Your task to perform on an android device: turn off location history Image 0: 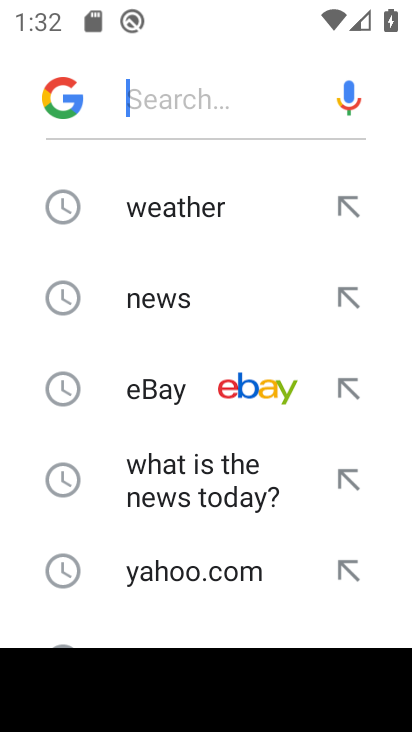
Step 0: press home button
Your task to perform on an android device: turn off location history Image 1: 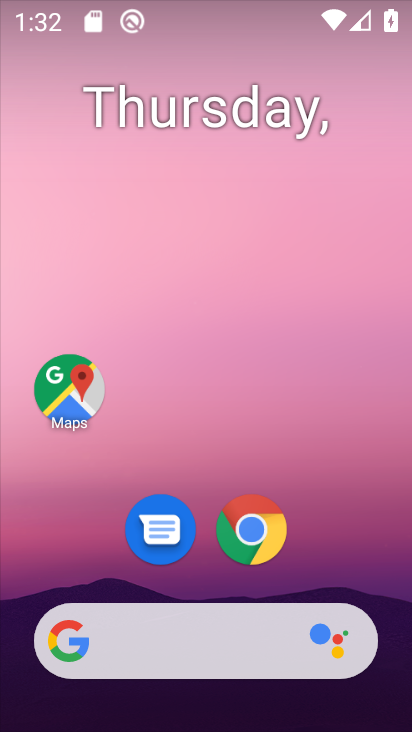
Step 1: drag from (188, 568) to (209, 184)
Your task to perform on an android device: turn off location history Image 2: 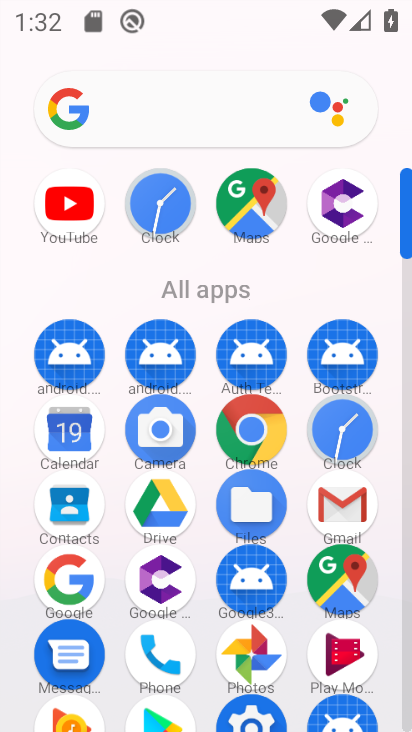
Step 2: drag from (275, 547) to (305, 402)
Your task to perform on an android device: turn off location history Image 3: 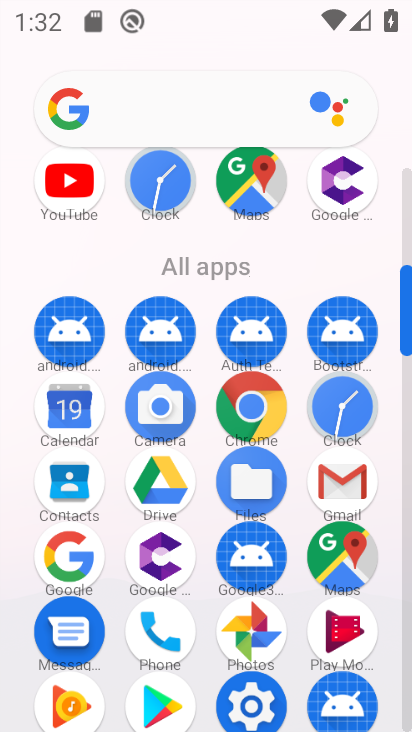
Step 3: click (244, 708)
Your task to perform on an android device: turn off location history Image 4: 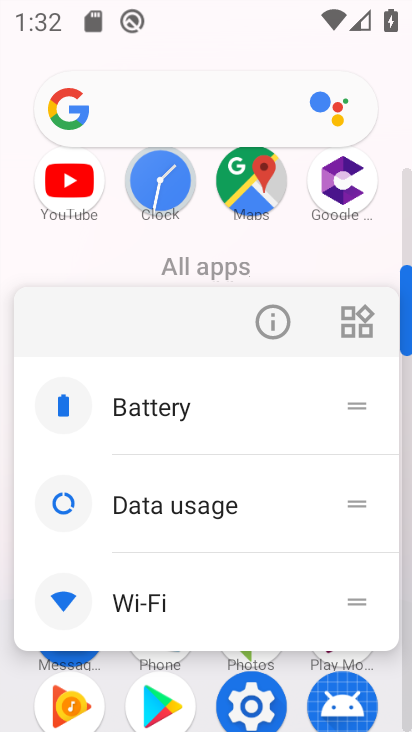
Step 4: click (237, 709)
Your task to perform on an android device: turn off location history Image 5: 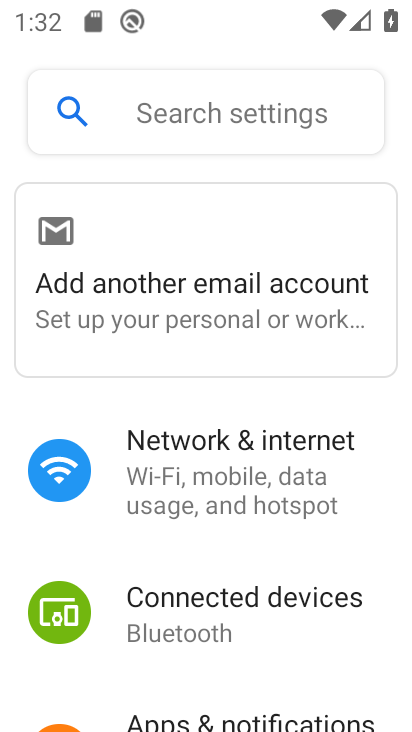
Step 5: drag from (228, 665) to (238, 265)
Your task to perform on an android device: turn off location history Image 6: 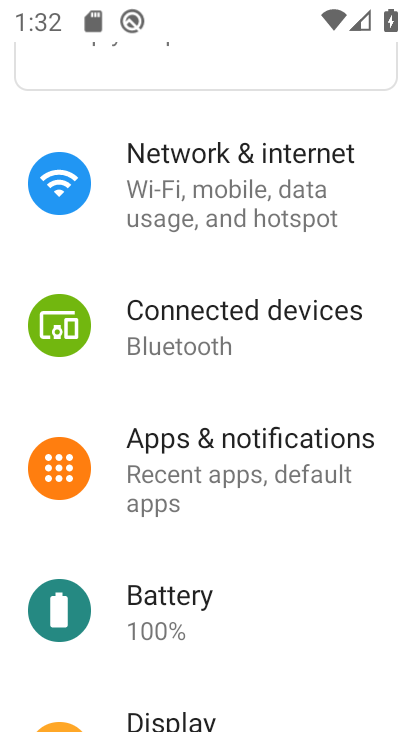
Step 6: drag from (224, 605) to (231, 294)
Your task to perform on an android device: turn off location history Image 7: 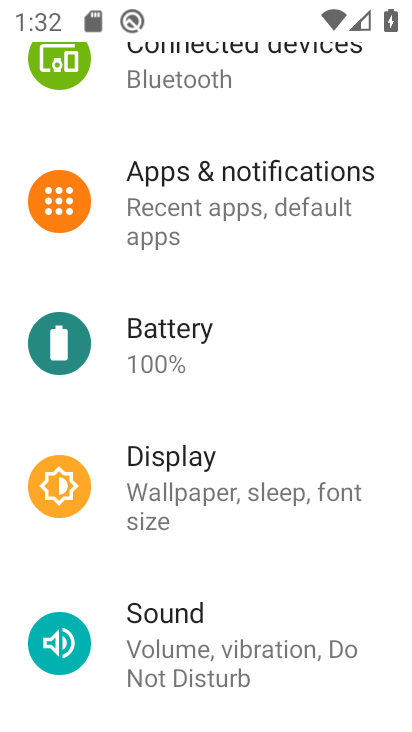
Step 7: drag from (223, 582) to (275, 239)
Your task to perform on an android device: turn off location history Image 8: 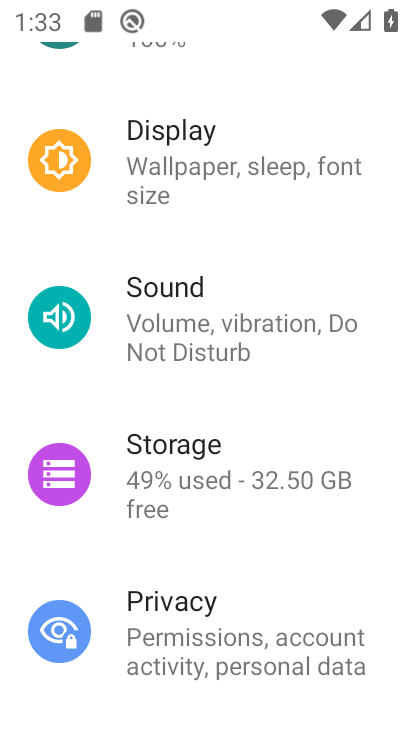
Step 8: drag from (265, 486) to (287, 320)
Your task to perform on an android device: turn off location history Image 9: 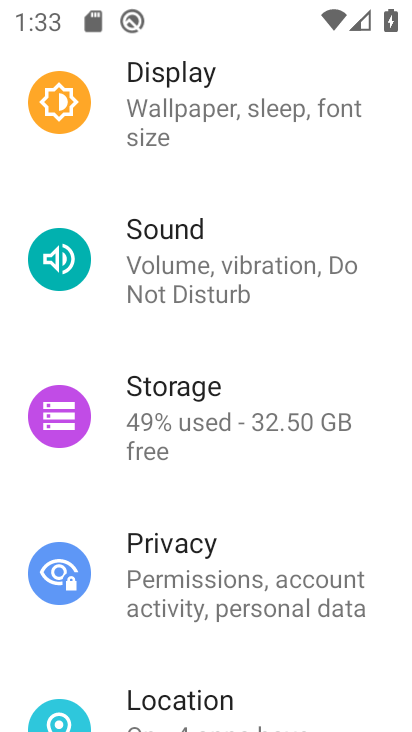
Step 9: drag from (218, 634) to (253, 297)
Your task to perform on an android device: turn off location history Image 10: 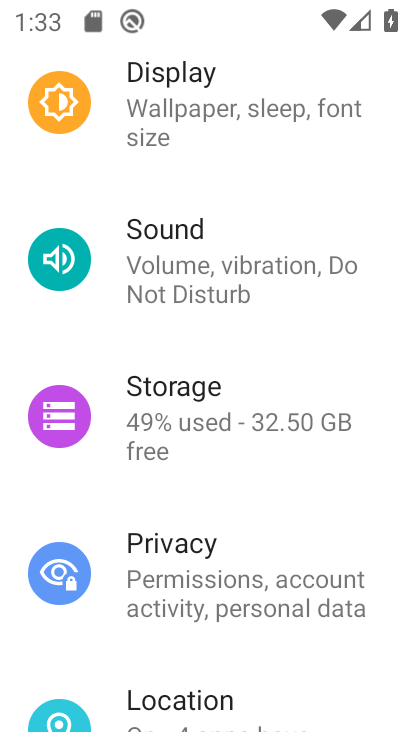
Step 10: click (194, 704)
Your task to perform on an android device: turn off location history Image 11: 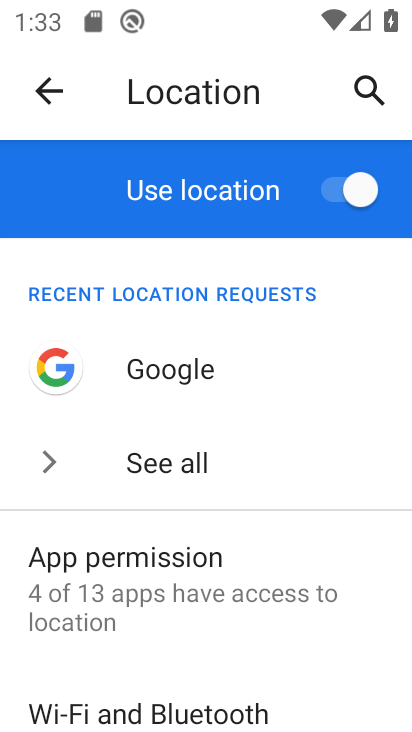
Step 11: click (243, 192)
Your task to perform on an android device: turn off location history Image 12: 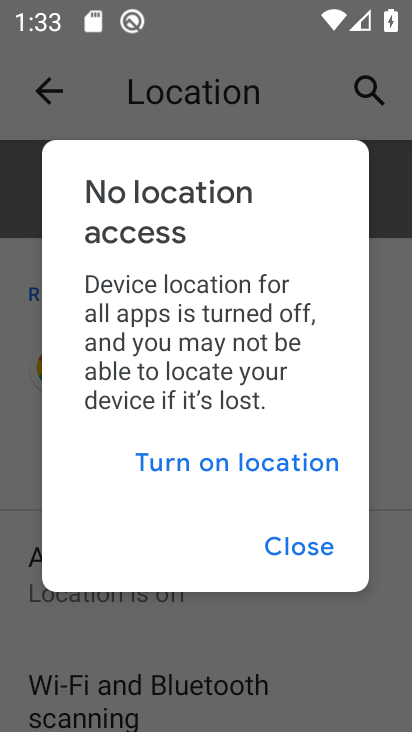
Step 12: click (301, 543)
Your task to perform on an android device: turn off location history Image 13: 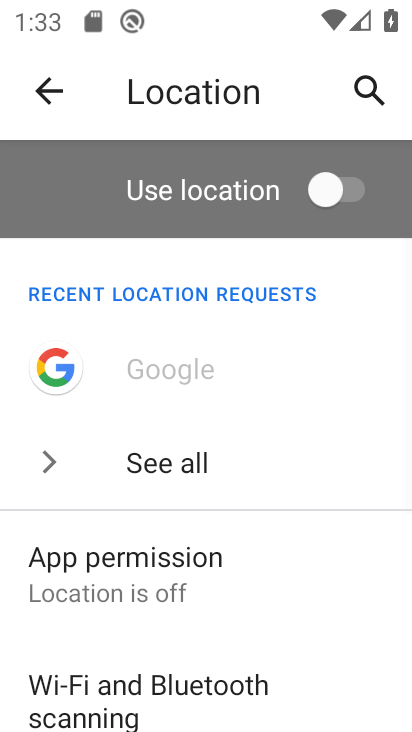
Step 13: drag from (301, 157) to (314, 76)
Your task to perform on an android device: turn off location history Image 14: 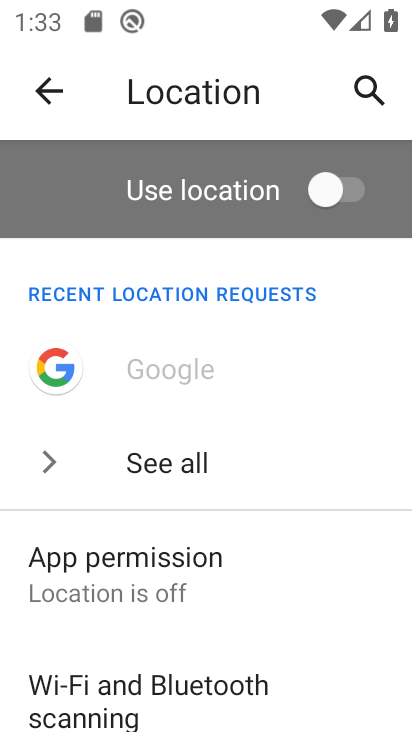
Step 14: drag from (130, 647) to (122, 224)
Your task to perform on an android device: turn off location history Image 15: 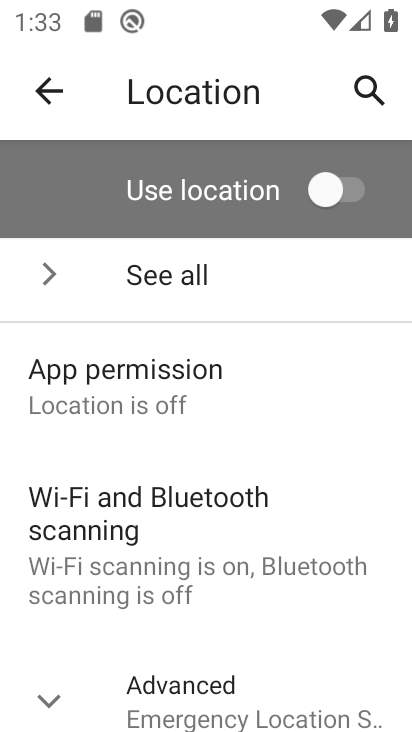
Step 15: drag from (167, 650) to (230, 298)
Your task to perform on an android device: turn off location history Image 16: 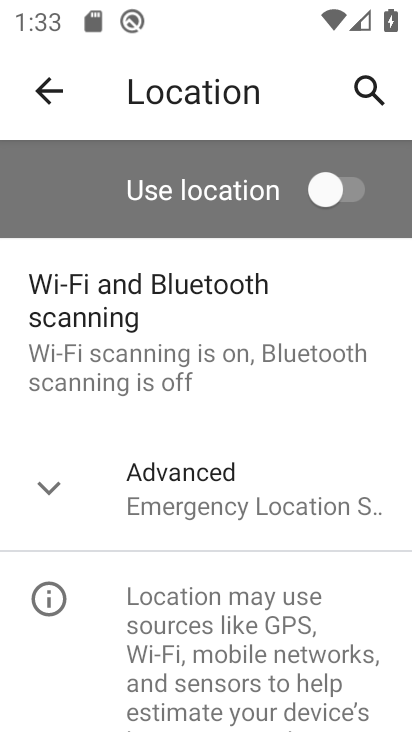
Step 16: drag from (158, 623) to (193, 232)
Your task to perform on an android device: turn off location history Image 17: 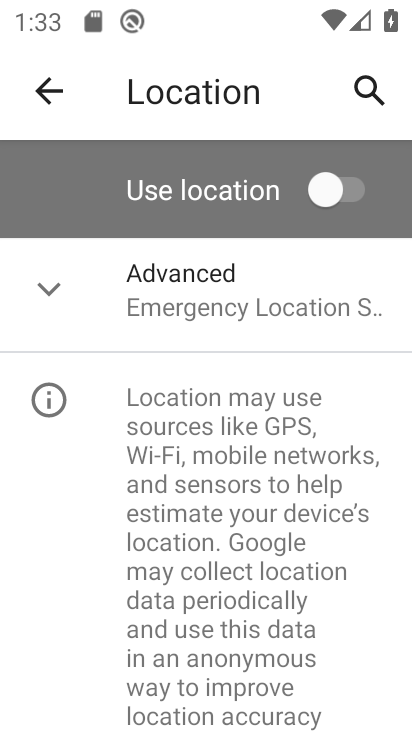
Step 17: click (191, 305)
Your task to perform on an android device: turn off location history Image 18: 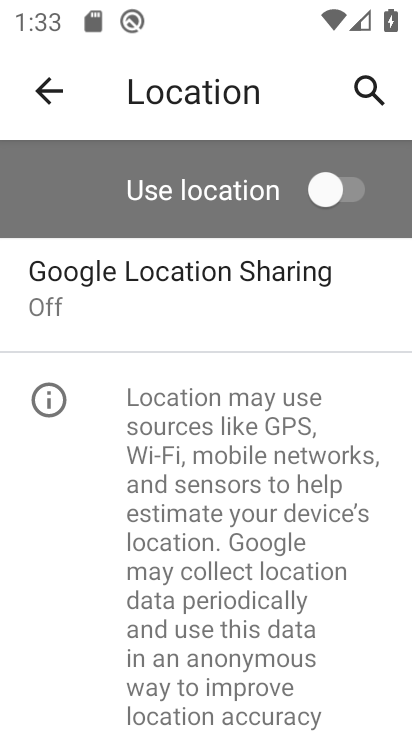
Step 18: click (222, 496)
Your task to perform on an android device: turn off location history Image 19: 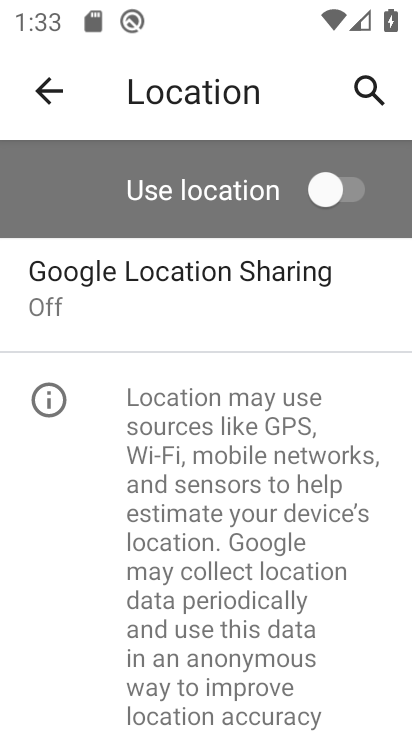
Step 19: click (220, 508)
Your task to perform on an android device: turn off location history Image 20: 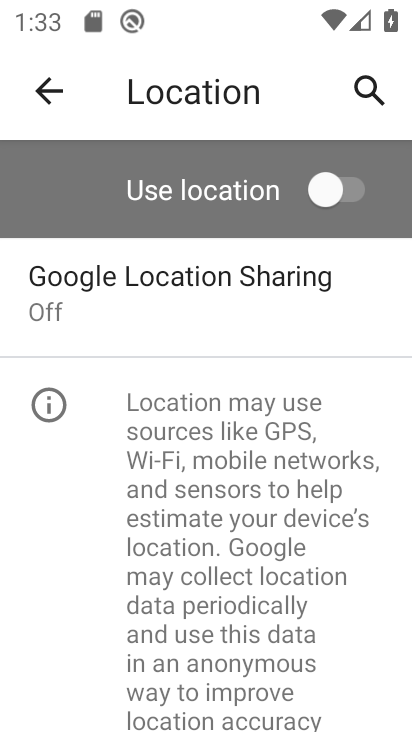
Step 20: drag from (261, 298) to (194, 543)
Your task to perform on an android device: turn off location history Image 21: 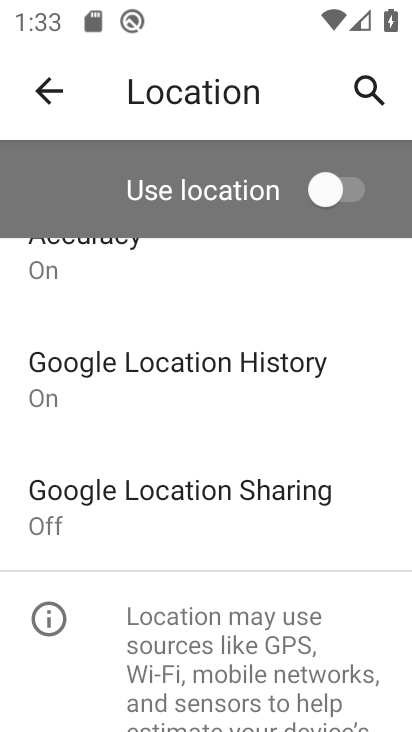
Step 21: click (222, 378)
Your task to perform on an android device: turn off location history Image 22: 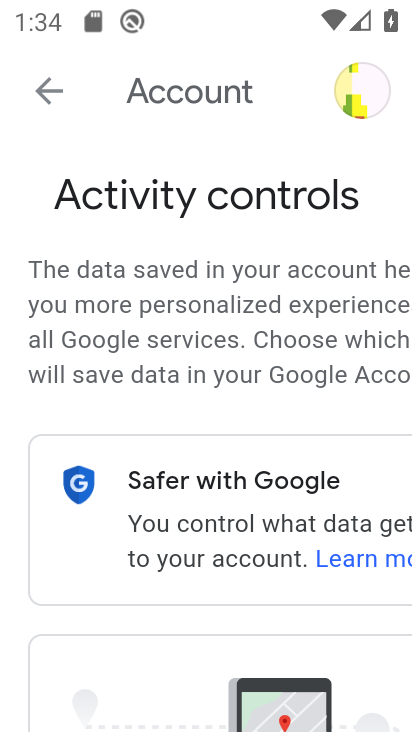
Step 22: click (235, 223)
Your task to perform on an android device: turn off location history Image 23: 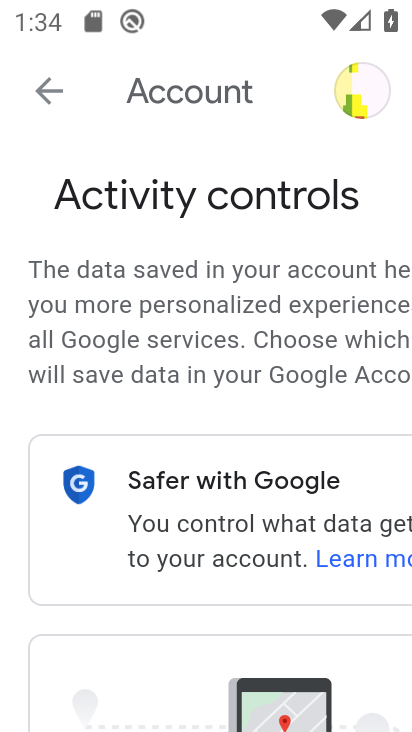
Step 23: drag from (179, 572) to (256, 153)
Your task to perform on an android device: turn off location history Image 24: 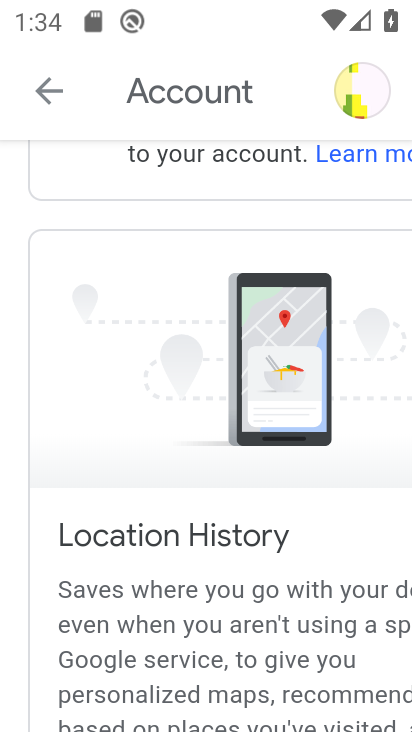
Step 24: drag from (212, 610) to (312, 210)
Your task to perform on an android device: turn off location history Image 25: 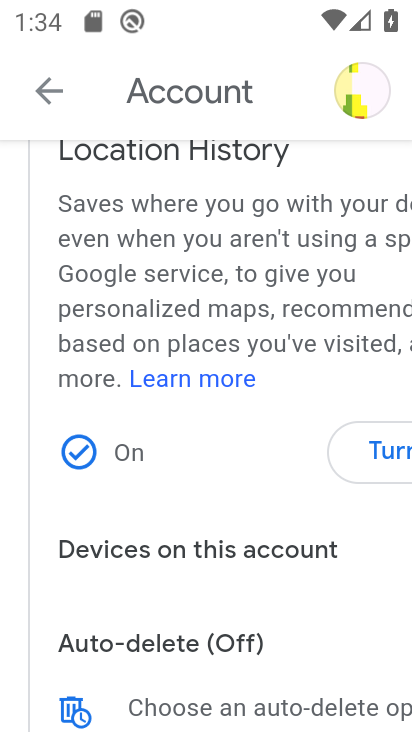
Step 25: click (375, 465)
Your task to perform on an android device: turn off location history Image 26: 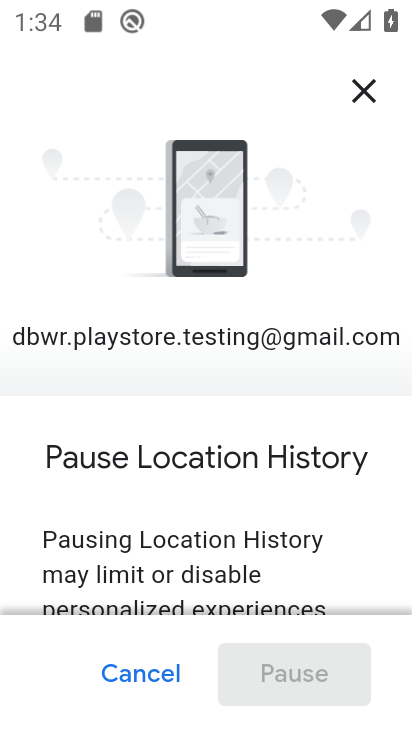
Step 26: drag from (257, 593) to (302, 244)
Your task to perform on an android device: turn off location history Image 27: 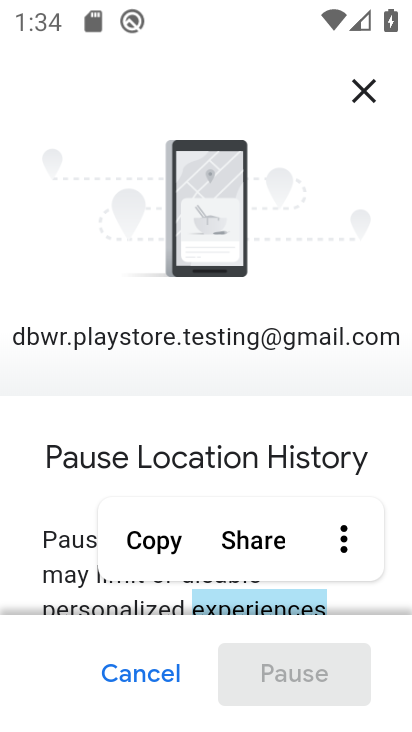
Step 27: click (72, 500)
Your task to perform on an android device: turn off location history Image 28: 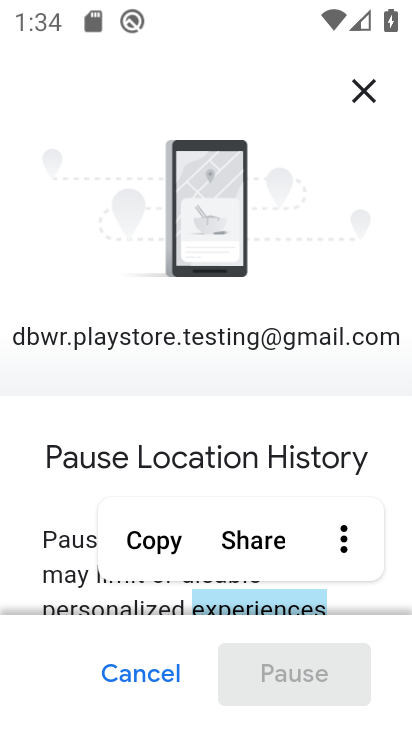
Step 28: drag from (169, 465) to (273, 99)
Your task to perform on an android device: turn off location history Image 29: 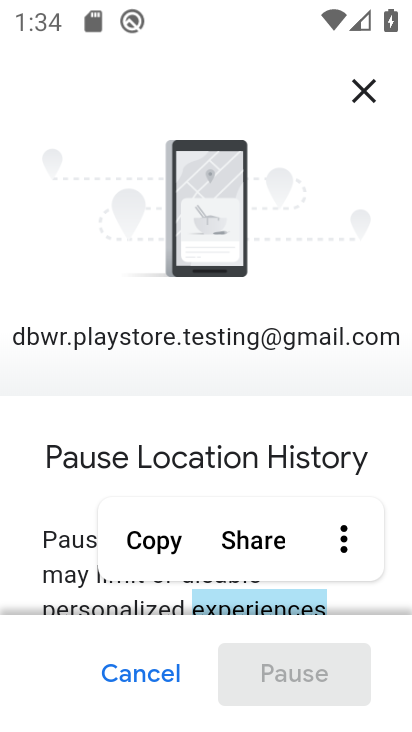
Step 29: drag from (137, 450) to (206, 141)
Your task to perform on an android device: turn off location history Image 30: 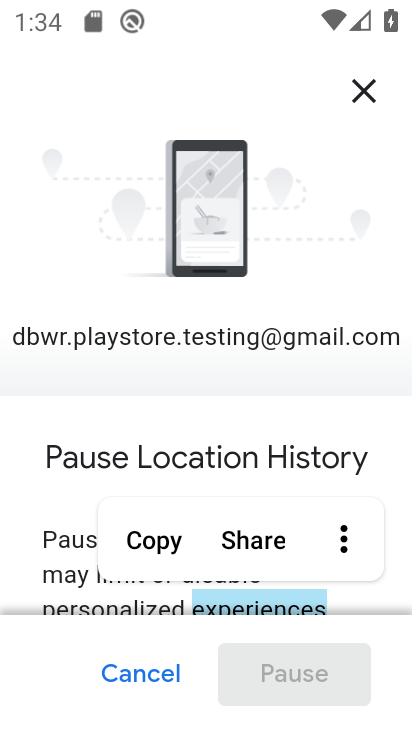
Step 30: click (78, 489)
Your task to perform on an android device: turn off location history Image 31: 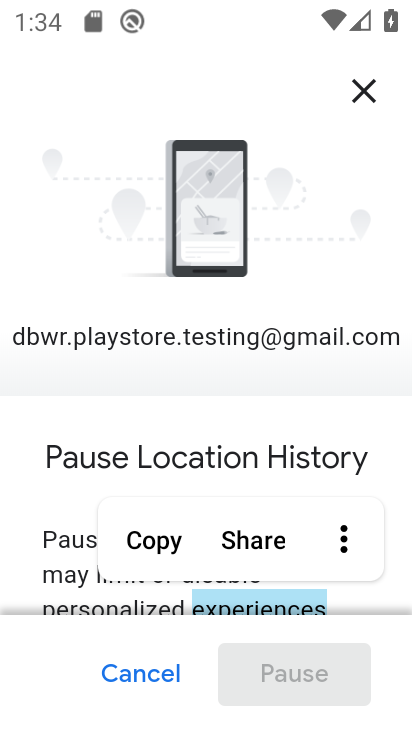
Step 31: click (78, 489)
Your task to perform on an android device: turn off location history Image 32: 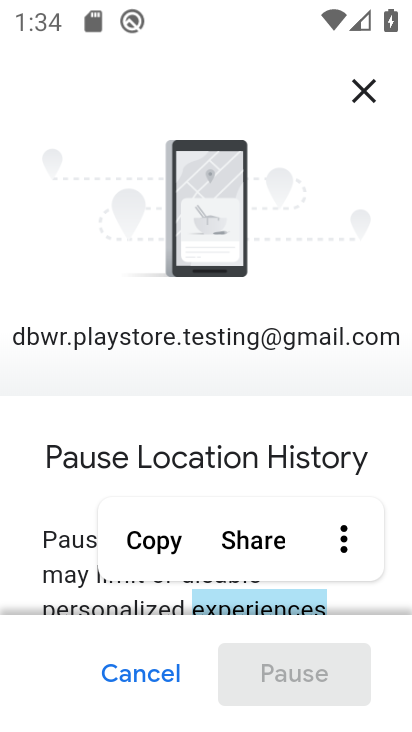
Step 32: click (78, 489)
Your task to perform on an android device: turn off location history Image 33: 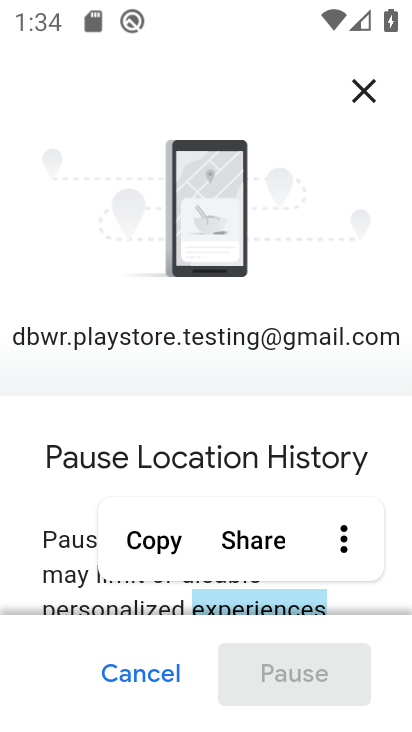
Step 33: drag from (59, 520) to (182, 10)
Your task to perform on an android device: turn off location history Image 34: 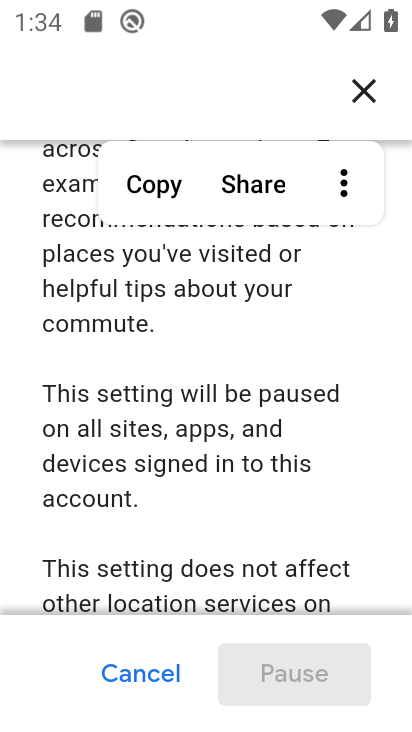
Step 34: drag from (260, 79) to (282, 17)
Your task to perform on an android device: turn off location history Image 35: 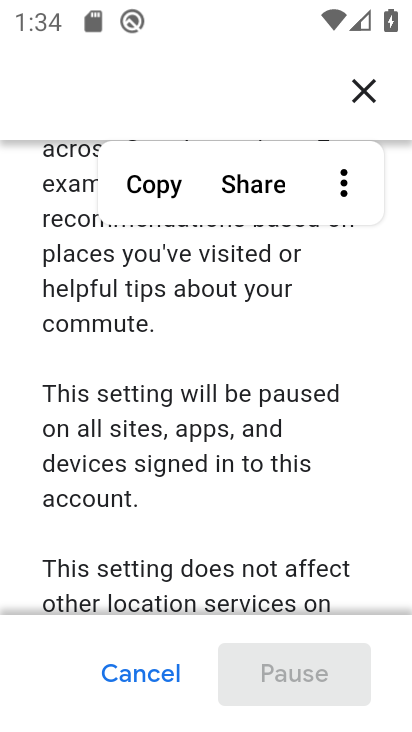
Step 35: click (296, 26)
Your task to perform on an android device: turn off location history Image 36: 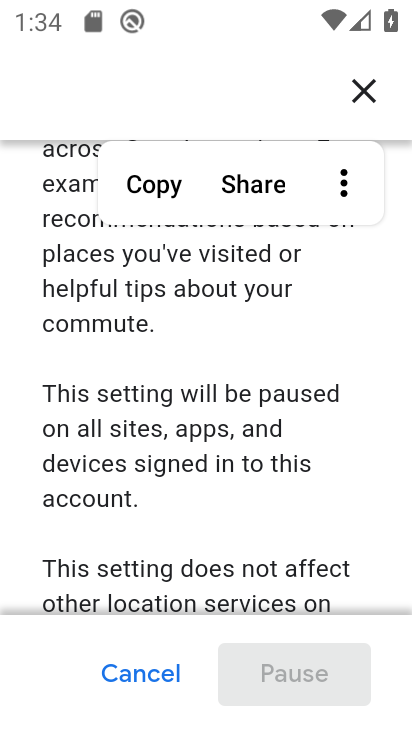
Step 36: drag from (166, 507) to (245, 200)
Your task to perform on an android device: turn off location history Image 37: 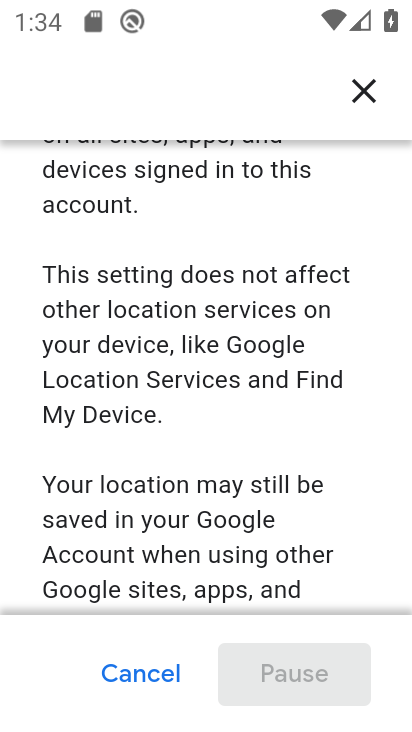
Step 37: drag from (236, 507) to (294, 203)
Your task to perform on an android device: turn off location history Image 38: 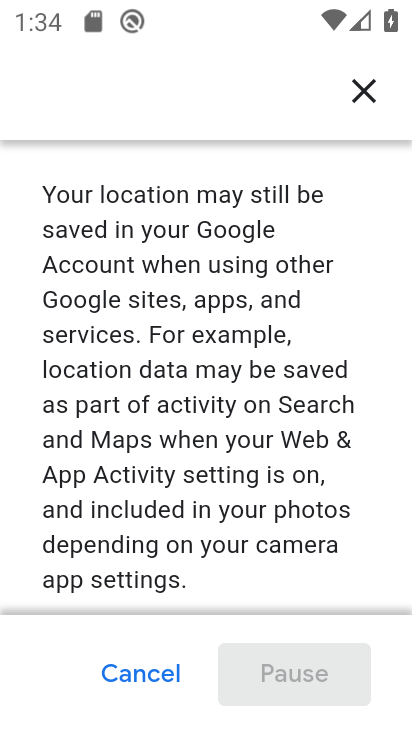
Step 38: drag from (203, 510) to (268, 172)
Your task to perform on an android device: turn off location history Image 39: 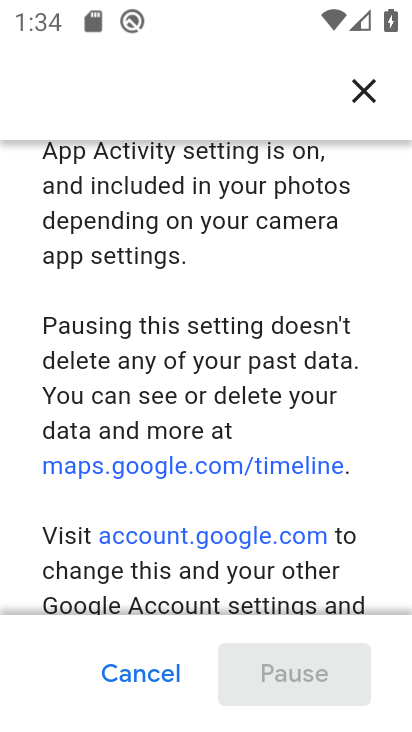
Step 39: drag from (263, 287) to (291, 218)
Your task to perform on an android device: turn off location history Image 40: 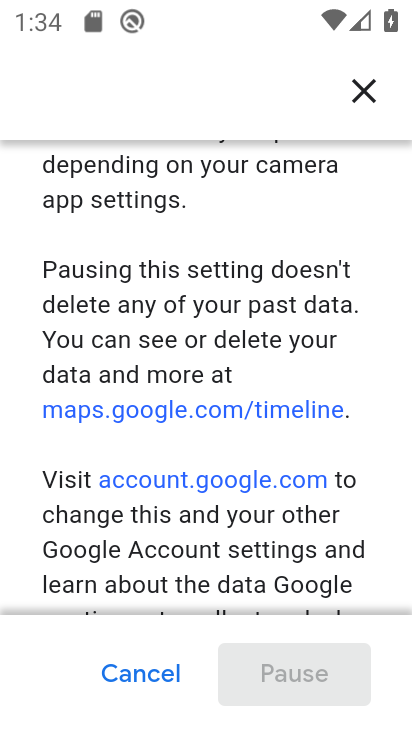
Step 40: drag from (169, 570) to (266, 205)
Your task to perform on an android device: turn off location history Image 41: 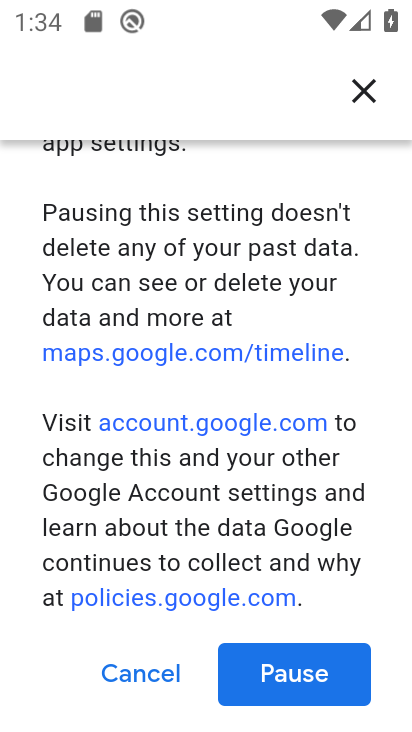
Step 41: click (263, 666)
Your task to perform on an android device: turn off location history Image 42: 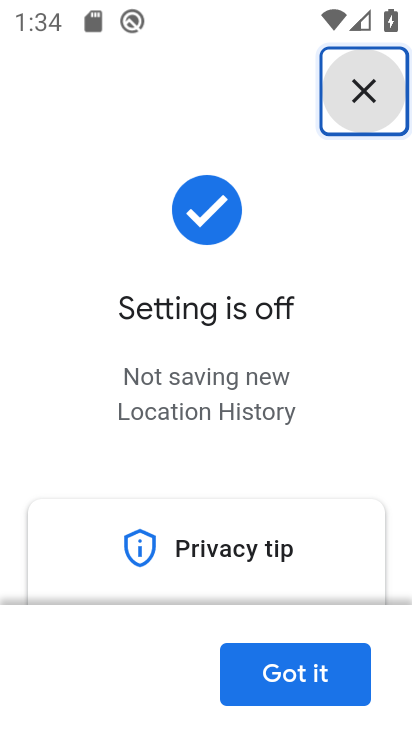
Step 42: click (289, 682)
Your task to perform on an android device: turn off location history Image 43: 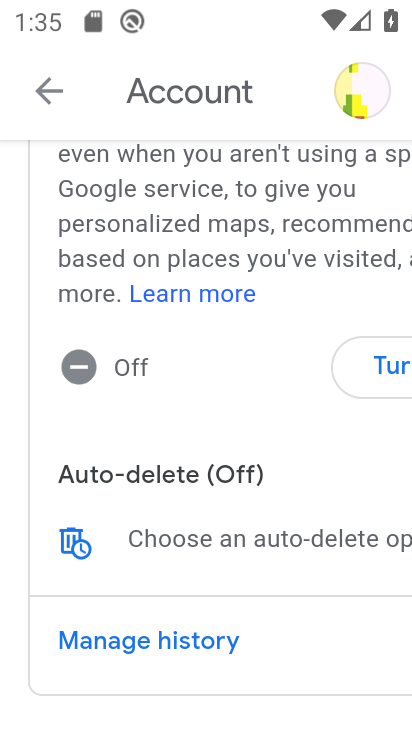
Step 43: task complete